Your task to perform on an android device: change notifications settings Image 0: 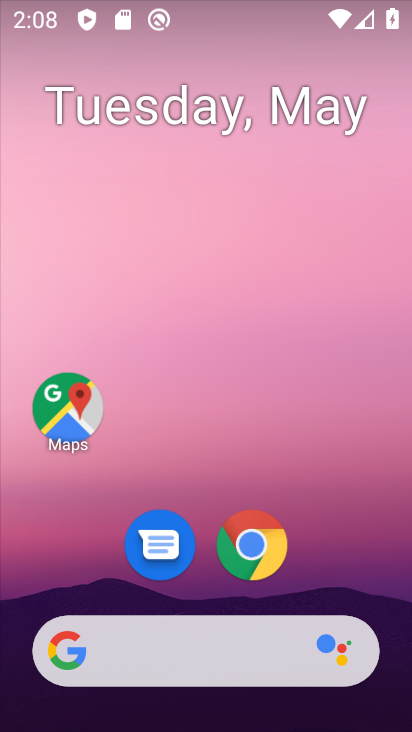
Step 0: drag from (200, 524) to (234, 60)
Your task to perform on an android device: change notifications settings Image 1: 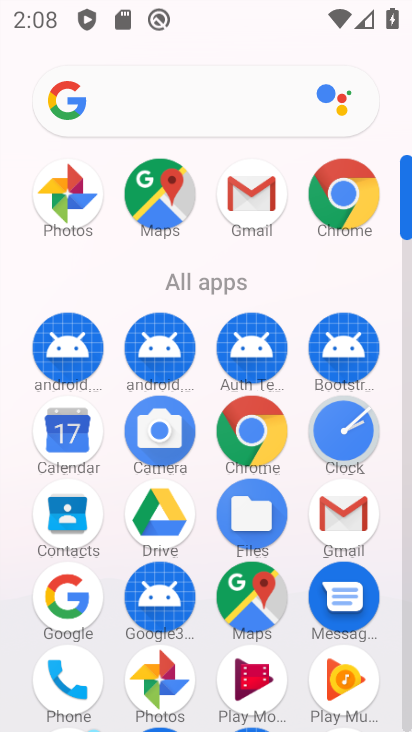
Step 1: drag from (208, 583) to (226, 283)
Your task to perform on an android device: change notifications settings Image 2: 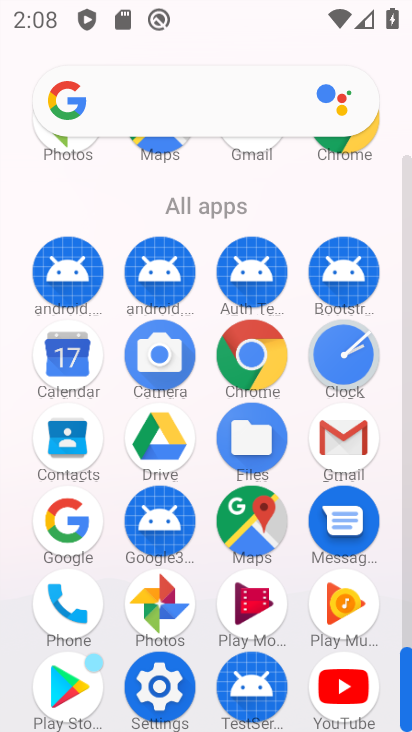
Step 2: click (156, 674)
Your task to perform on an android device: change notifications settings Image 3: 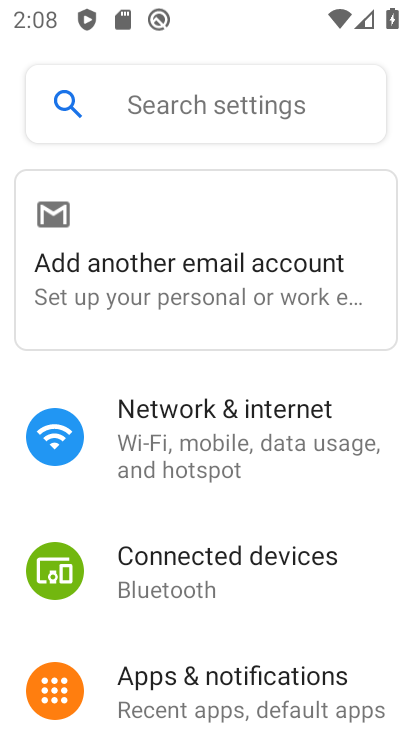
Step 3: click (218, 697)
Your task to perform on an android device: change notifications settings Image 4: 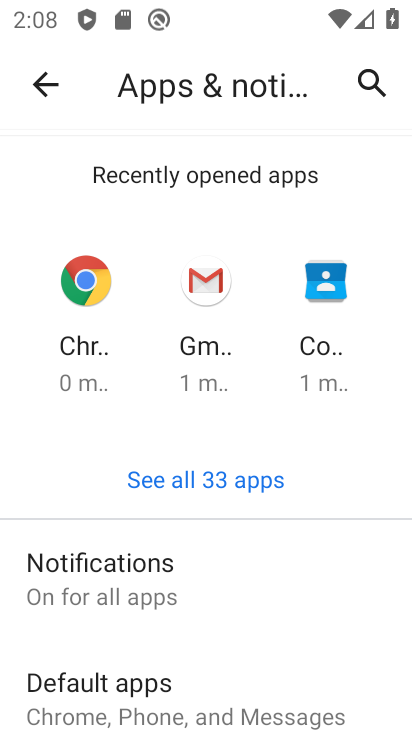
Step 4: click (173, 589)
Your task to perform on an android device: change notifications settings Image 5: 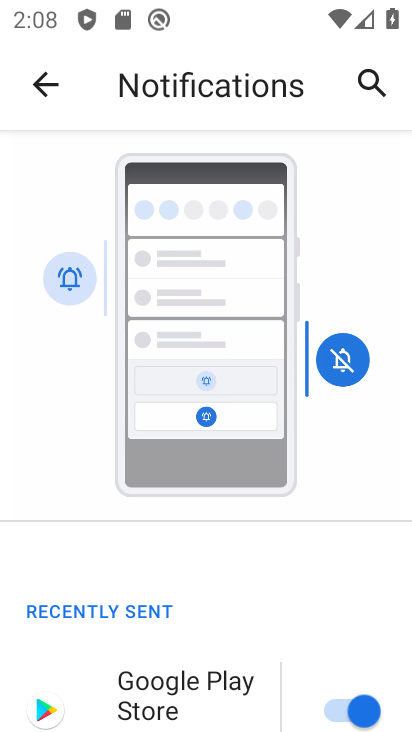
Step 5: drag from (217, 682) to (309, 84)
Your task to perform on an android device: change notifications settings Image 6: 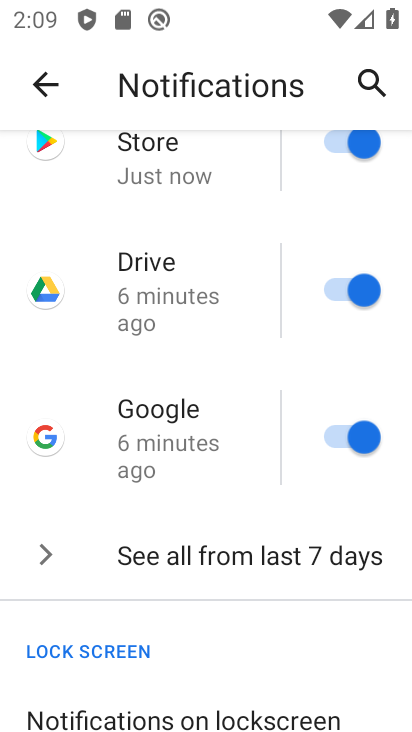
Step 6: click (333, 440)
Your task to perform on an android device: change notifications settings Image 7: 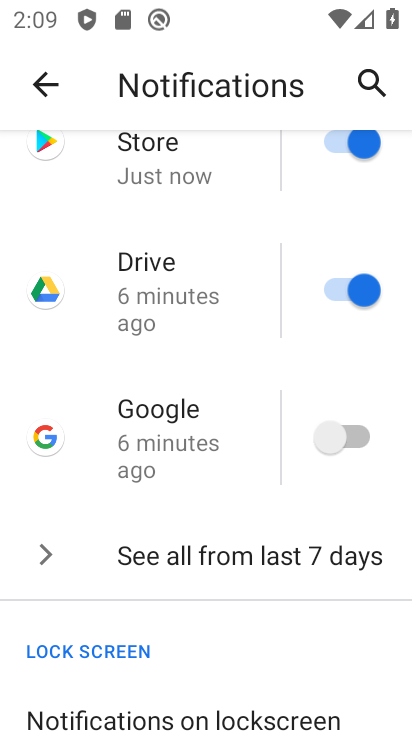
Step 7: task complete